Your task to perform on an android device: toggle notification dots Image 0: 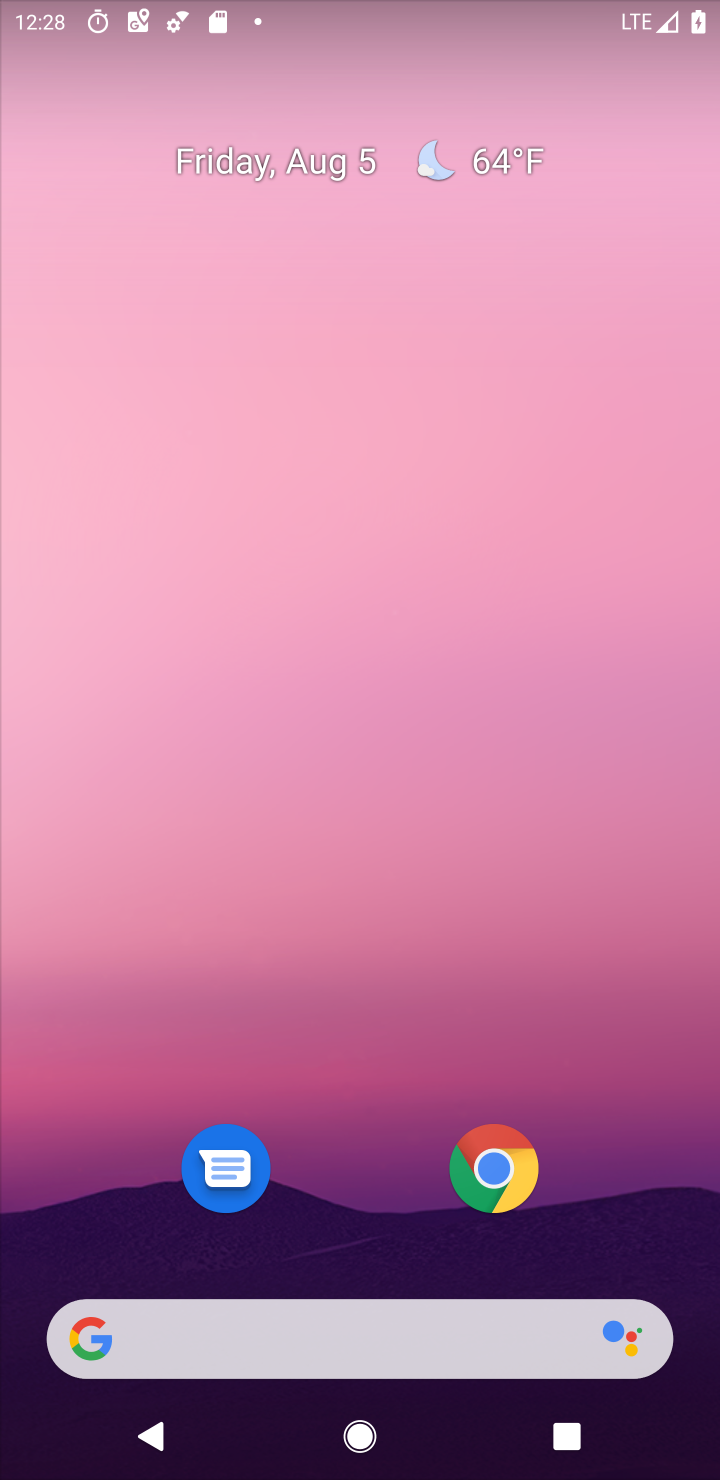
Step 0: drag from (270, 823) to (301, 514)
Your task to perform on an android device: toggle notification dots Image 1: 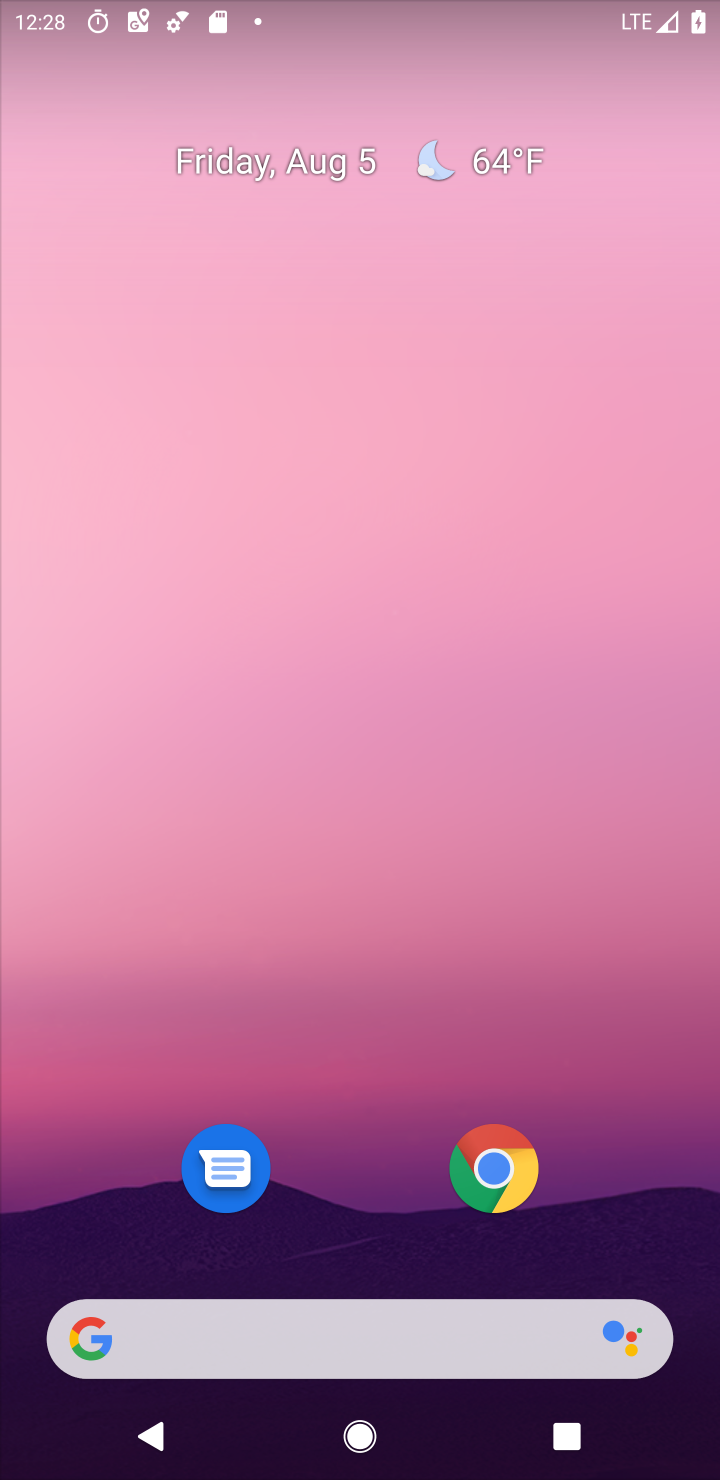
Step 1: drag from (310, 1217) to (403, 11)
Your task to perform on an android device: toggle notification dots Image 2: 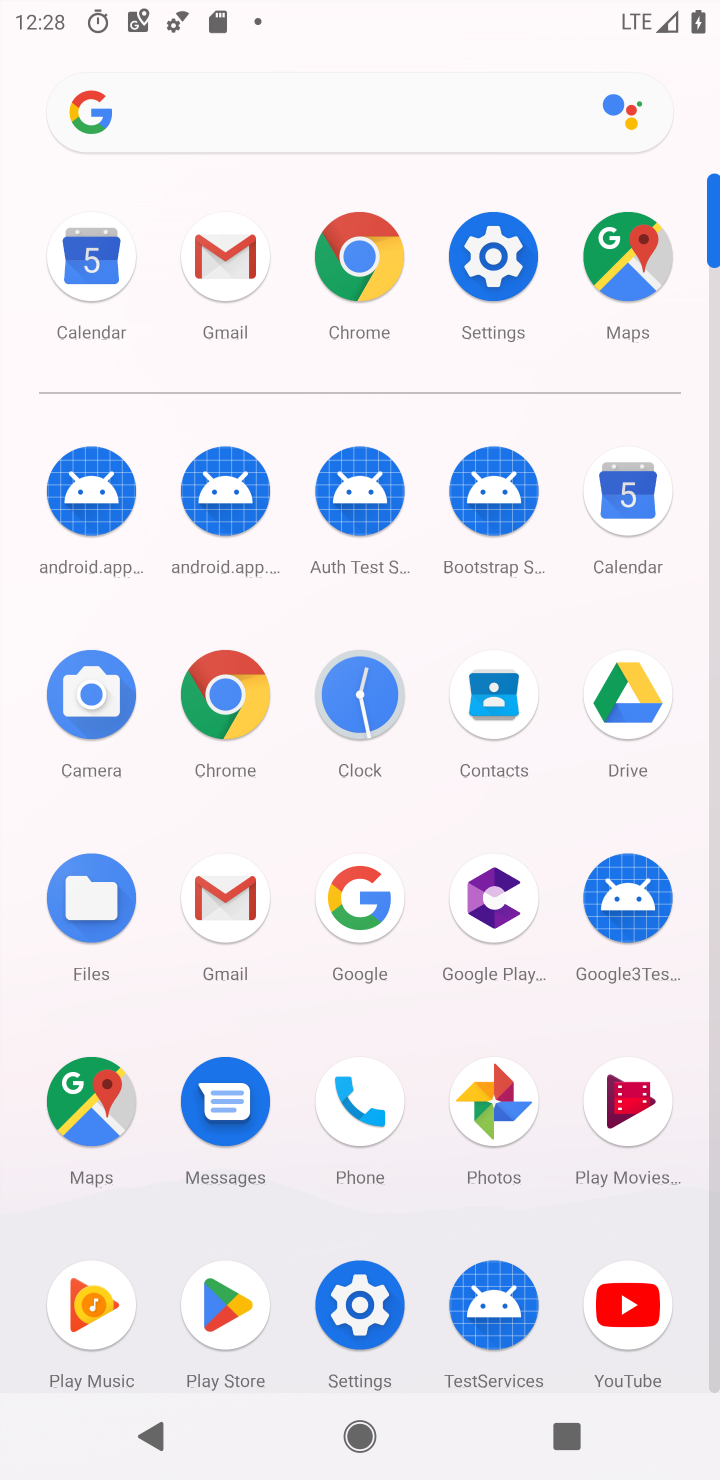
Step 2: click (502, 273)
Your task to perform on an android device: toggle notification dots Image 3: 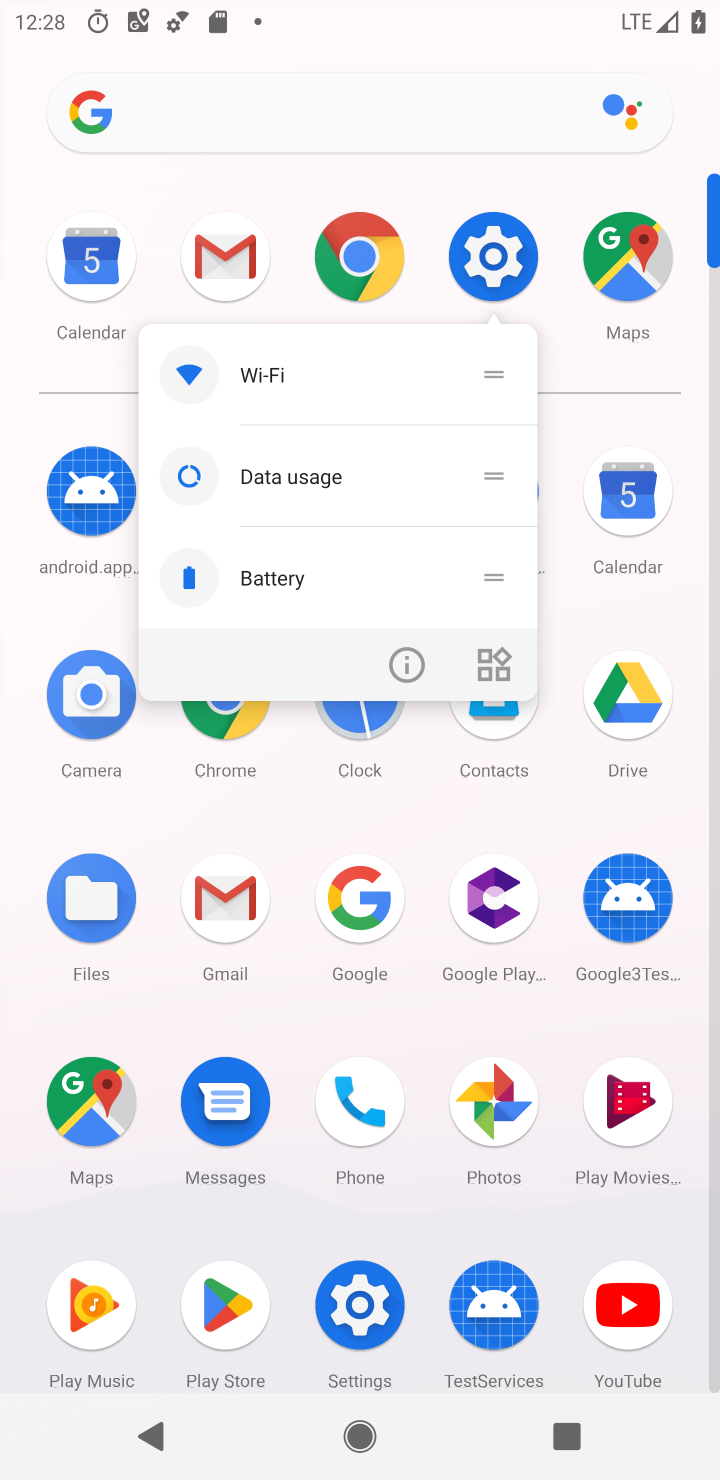
Step 3: click (496, 290)
Your task to perform on an android device: toggle notification dots Image 4: 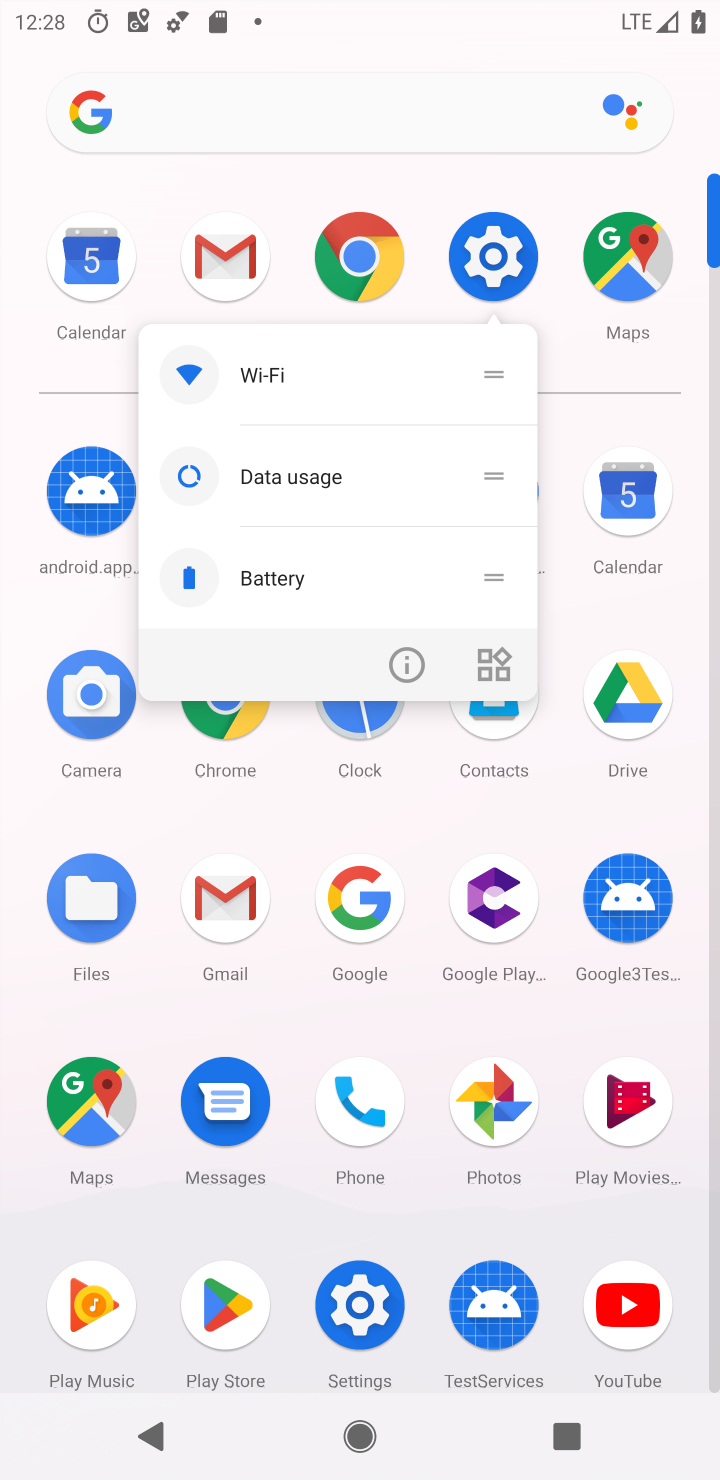
Step 4: click (488, 254)
Your task to perform on an android device: toggle notification dots Image 5: 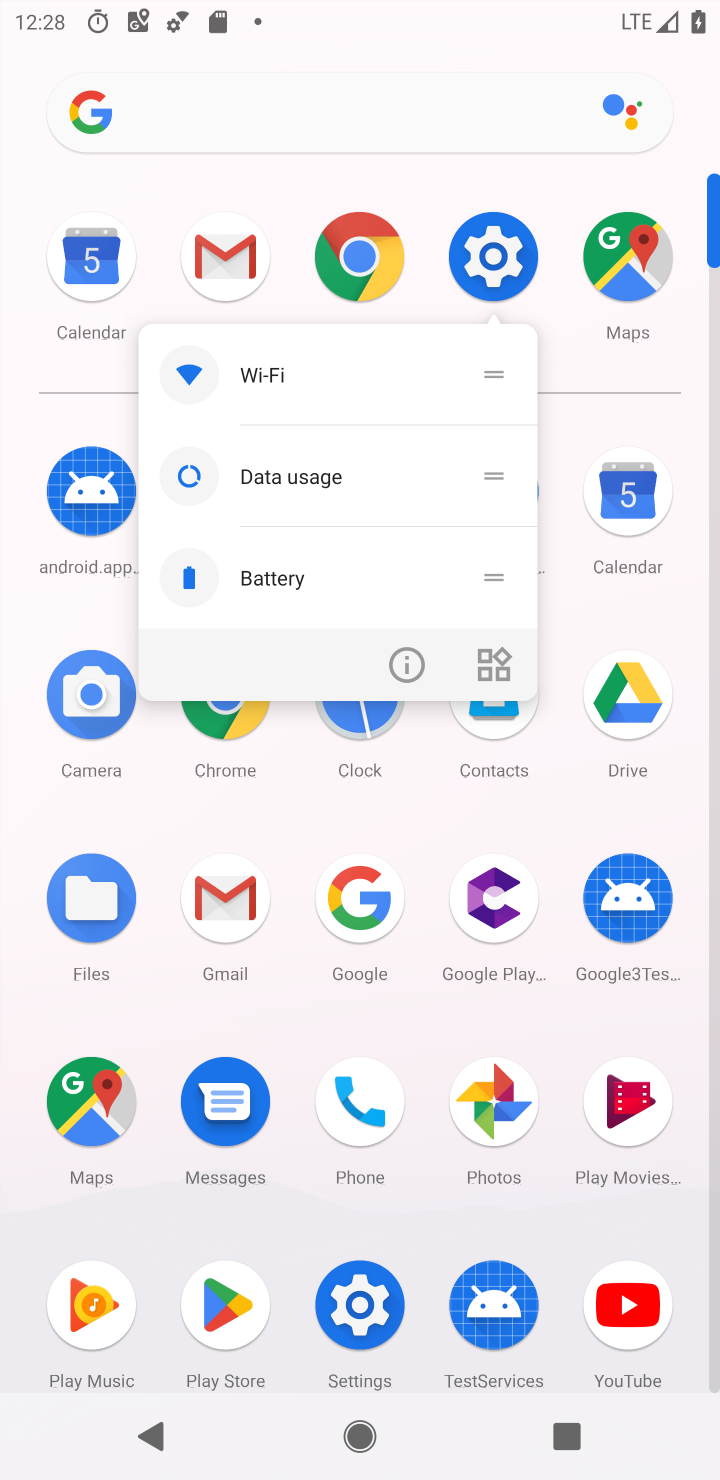
Step 5: click (491, 228)
Your task to perform on an android device: toggle notification dots Image 6: 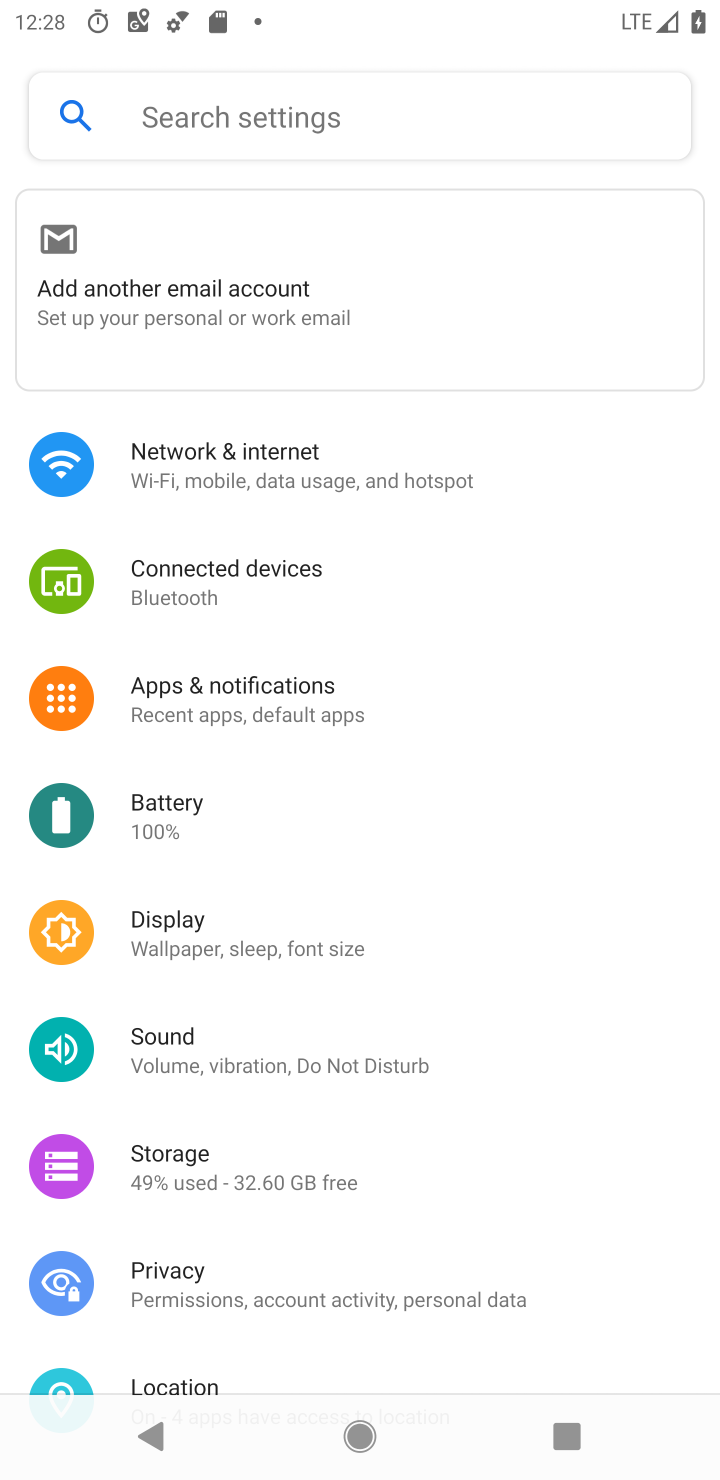
Step 6: click (327, 710)
Your task to perform on an android device: toggle notification dots Image 7: 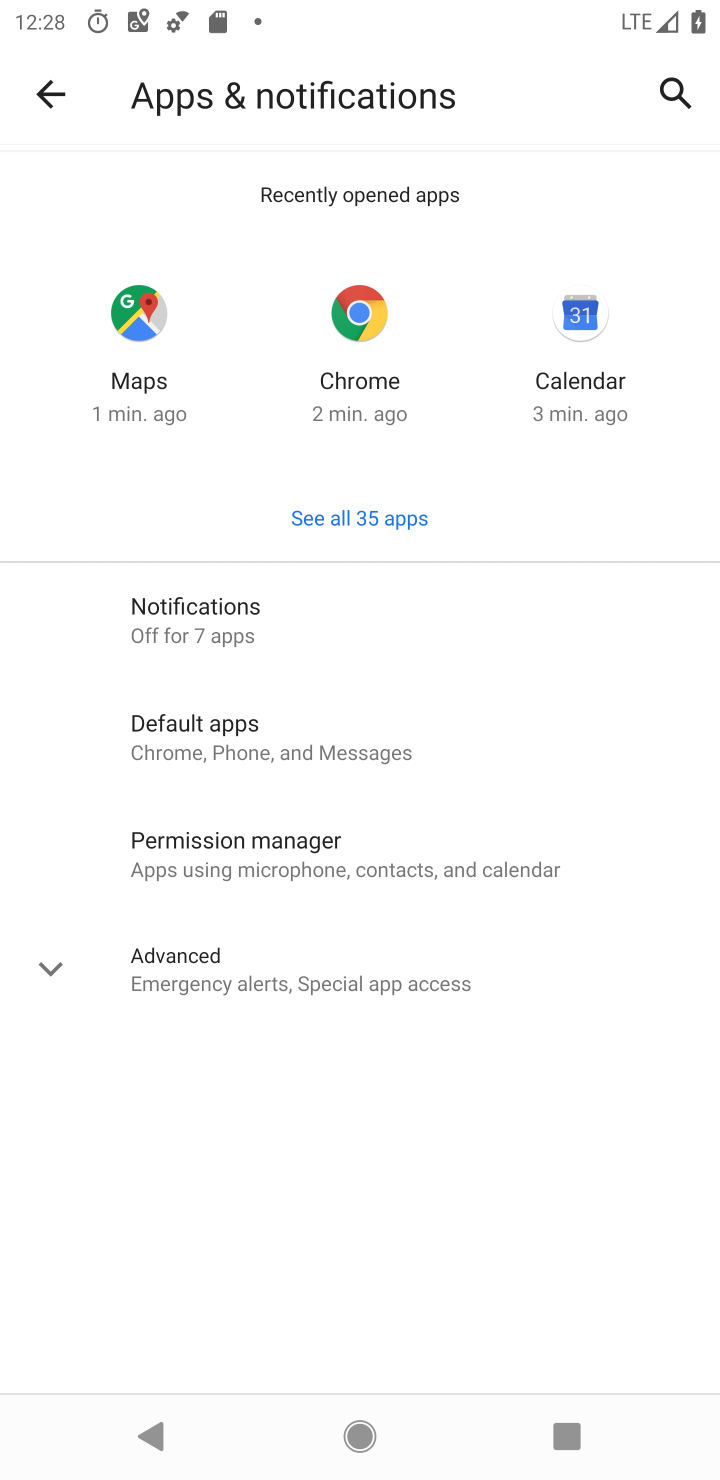
Step 7: click (226, 629)
Your task to perform on an android device: toggle notification dots Image 8: 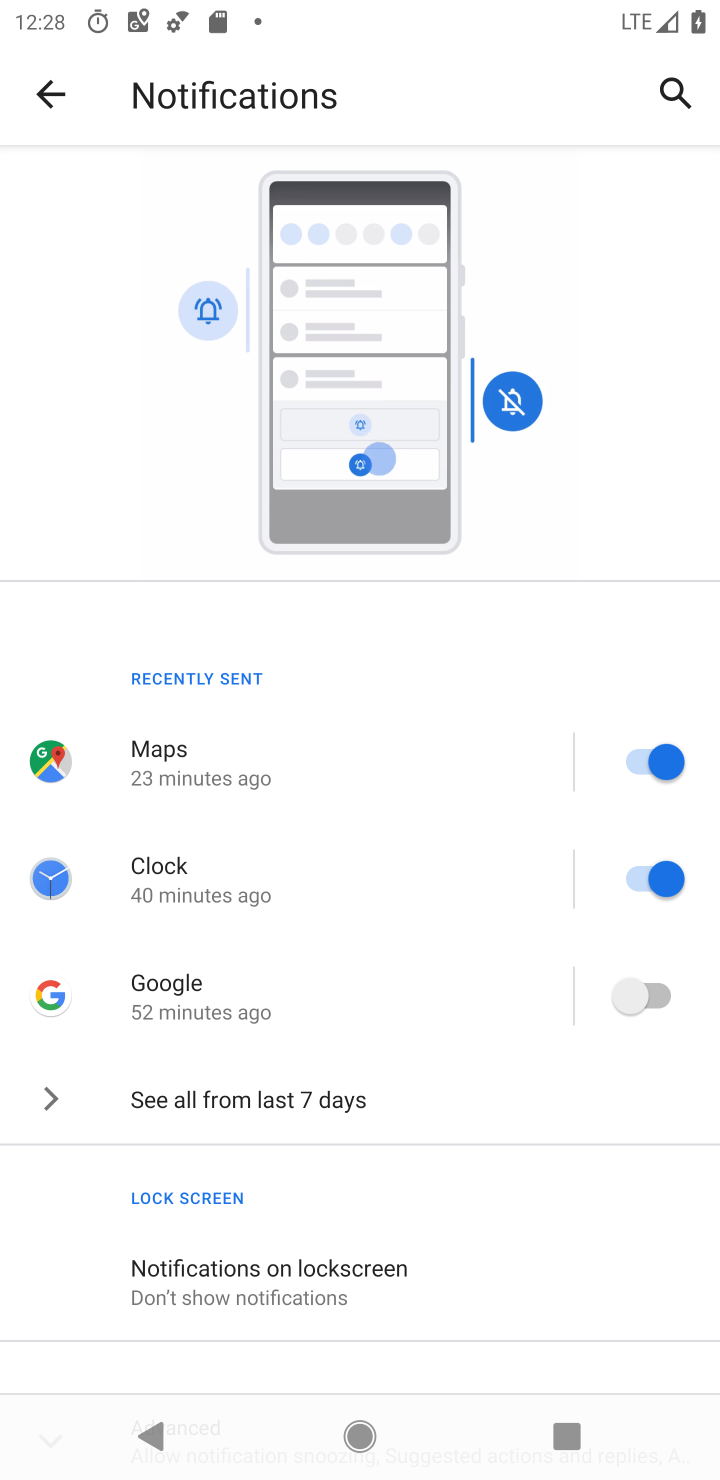
Step 8: drag from (263, 1205) to (327, 700)
Your task to perform on an android device: toggle notification dots Image 9: 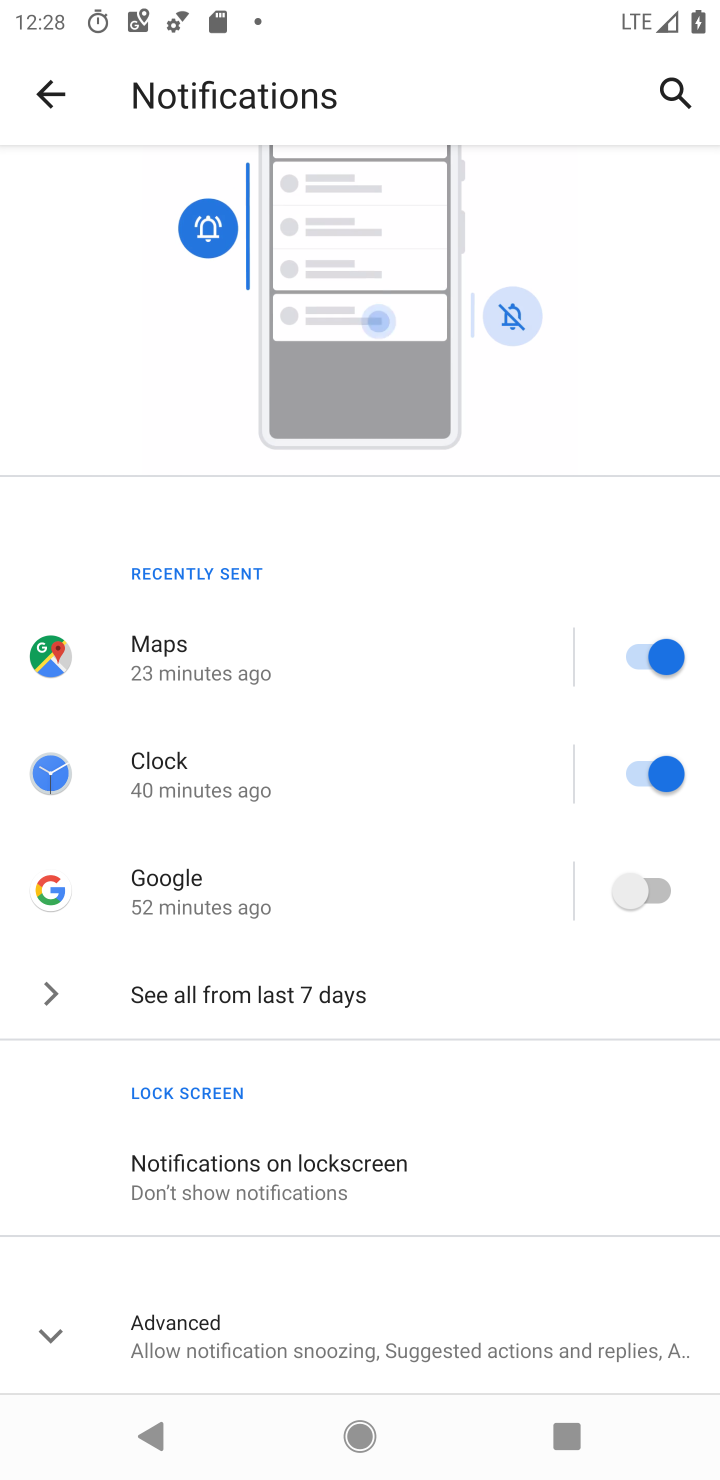
Step 9: click (154, 1341)
Your task to perform on an android device: toggle notification dots Image 10: 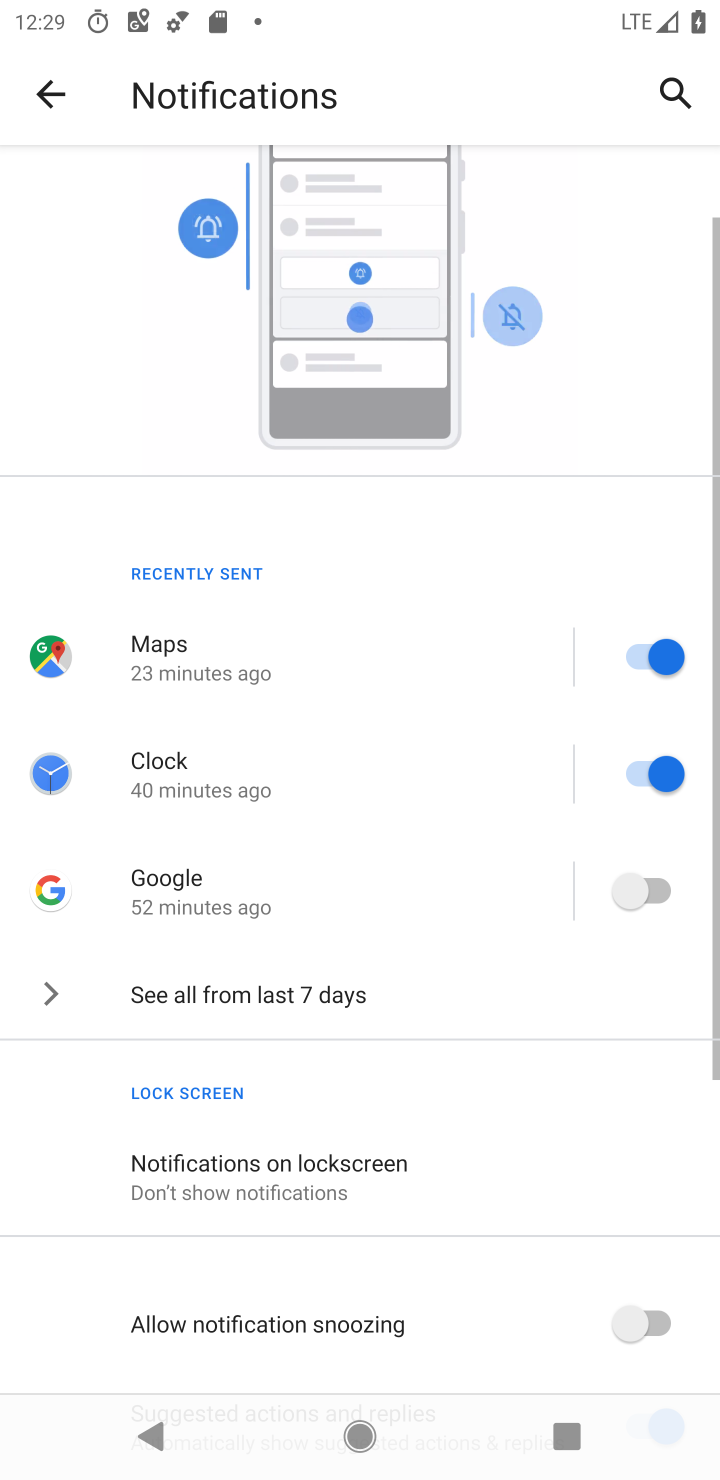
Step 10: drag from (302, 1301) to (322, 562)
Your task to perform on an android device: toggle notification dots Image 11: 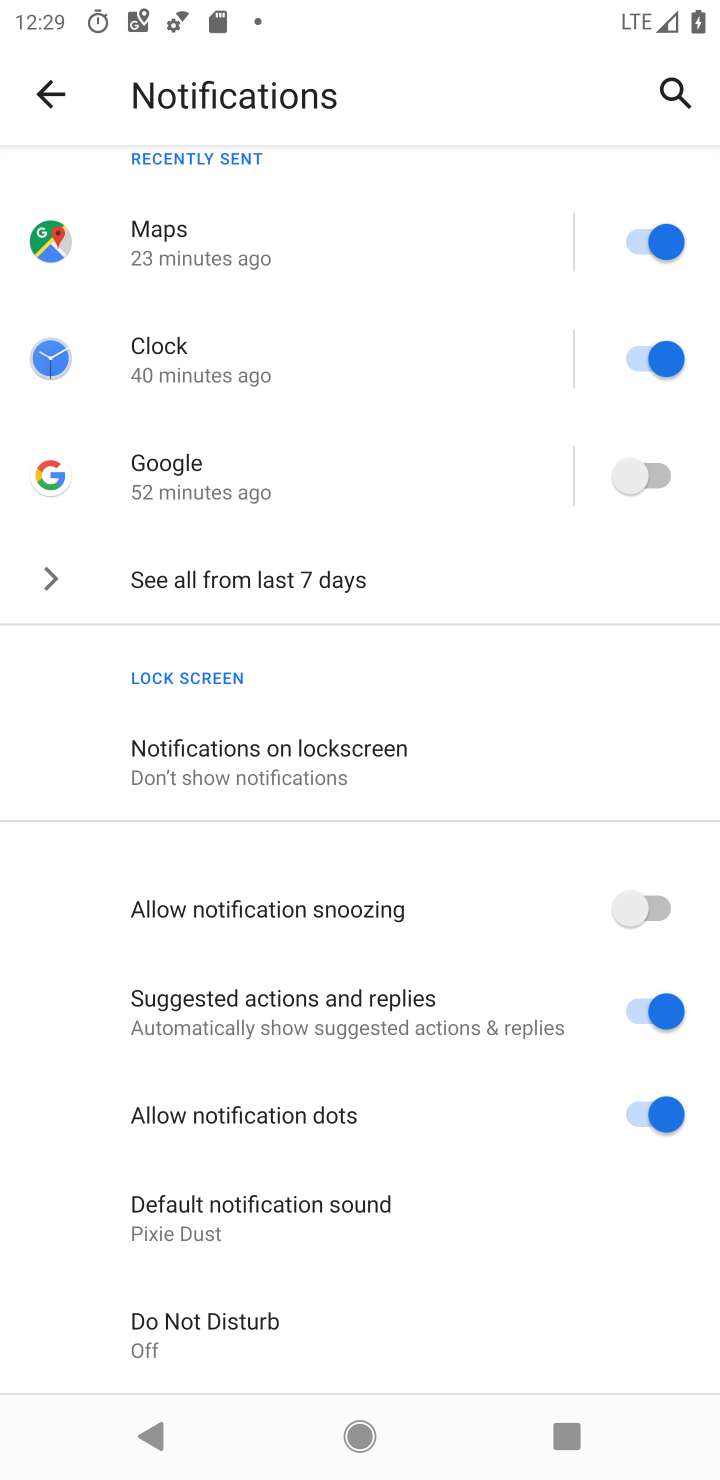
Step 11: click (585, 1123)
Your task to perform on an android device: toggle notification dots Image 12: 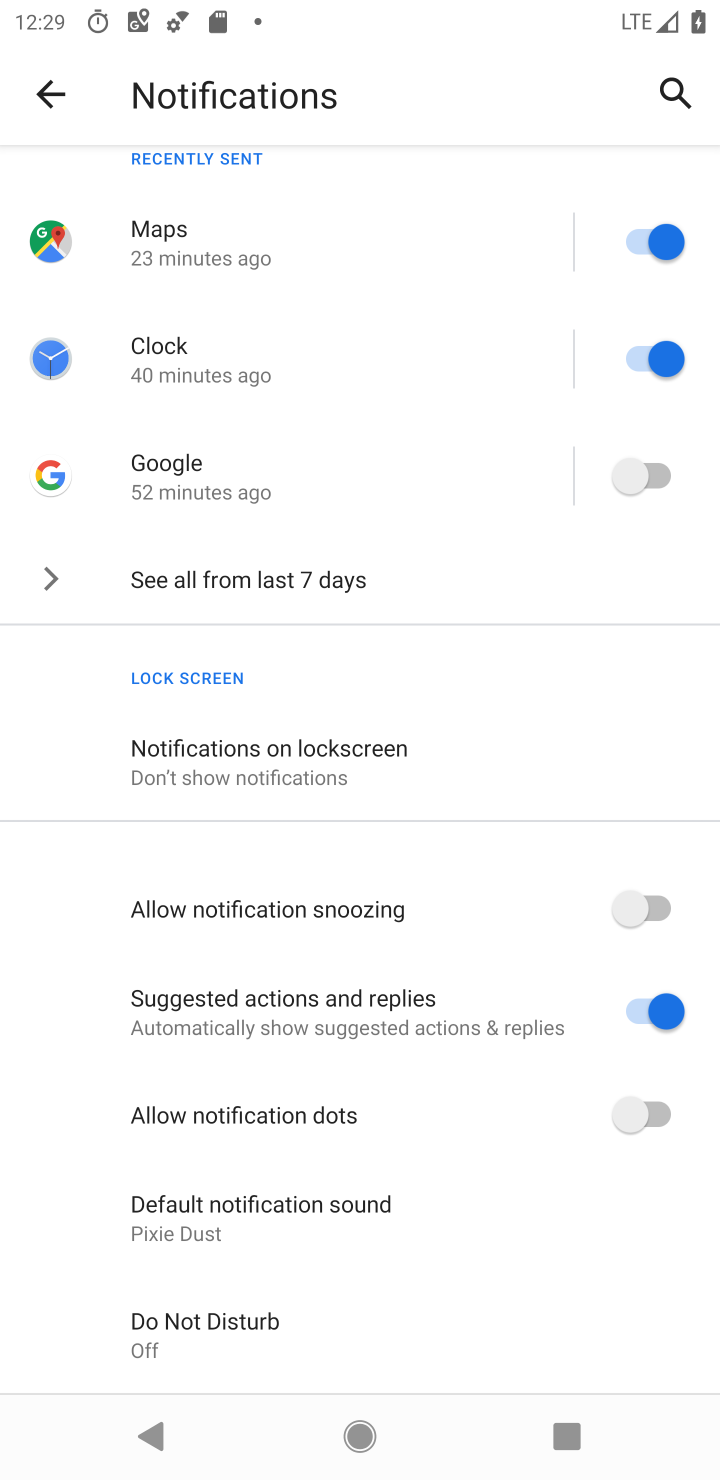
Step 12: task complete